Your task to perform on an android device: delete a single message in the gmail app Image 0: 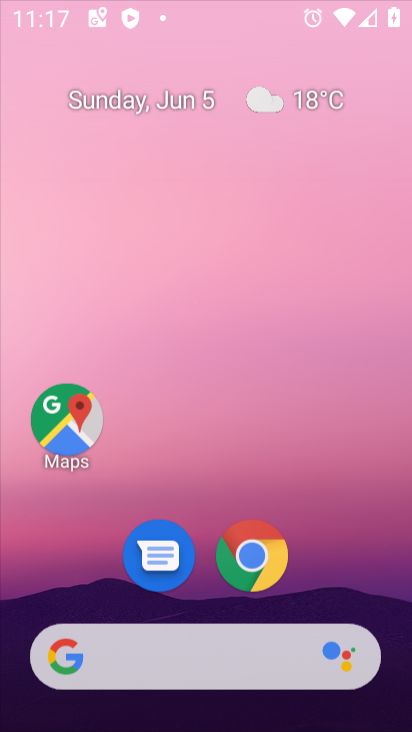
Step 0: click (317, 50)
Your task to perform on an android device: delete a single message in the gmail app Image 1: 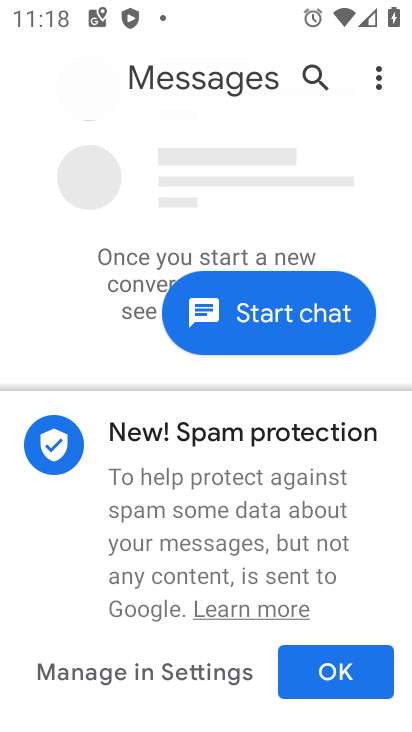
Step 1: press home button
Your task to perform on an android device: delete a single message in the gmail app Image 2: 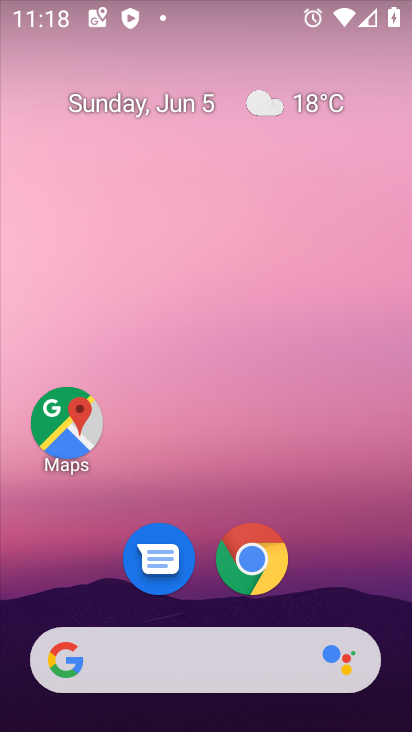
Step 2: drag from (400, 716) to (315, 40)
Your task to perform on an android device: delete a single message in the gmail app Image 3: 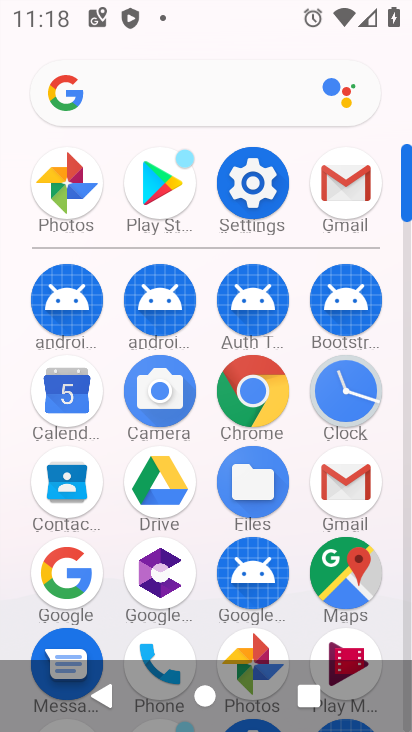
Step 3: click (340, 496)
Your task to perform on an android device: delete a single message in the gmail app Image 4: 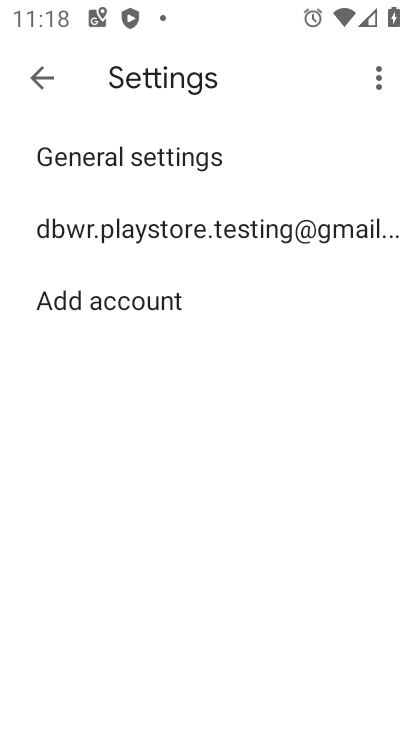
Step 4: click (34, 78)
Your task to perform on an android device: delete a single message in the gmail app Image 5: 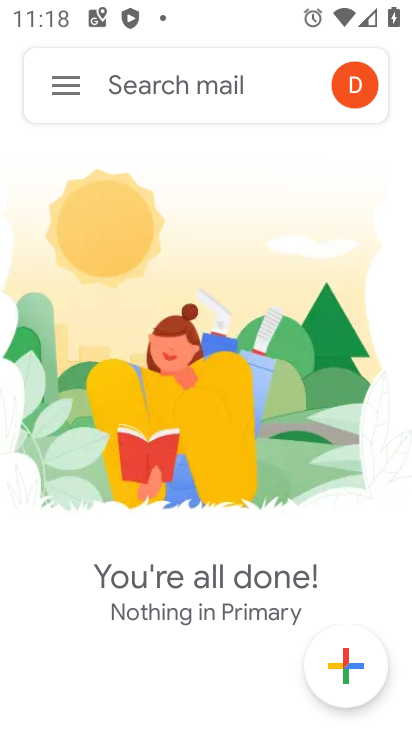
Step 5: click (56, 84)
Your task to perform on an android device: delete a single message in the gmail app Image 6: 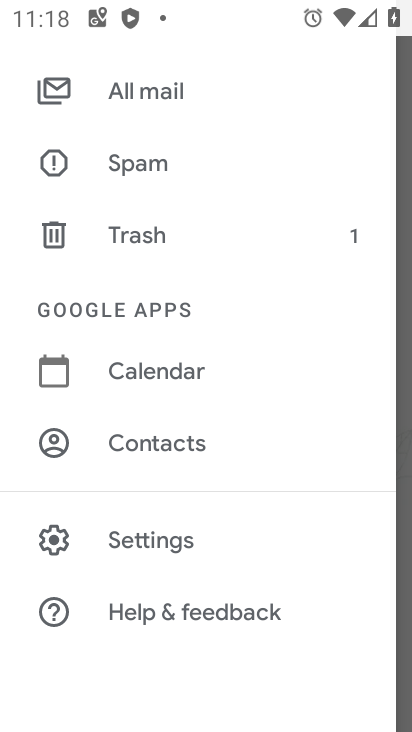
Step 6: drag from (252, 108) to (303, 652)
Your task to perform on an android device: delete a single message in the gmail app Image 7: 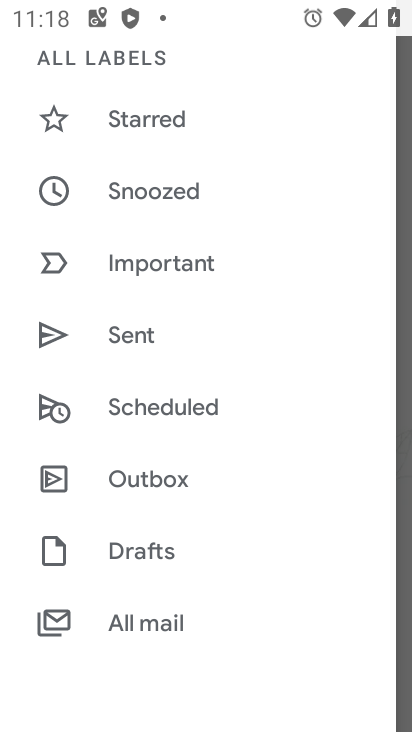
Step 7: drag from (283, 112) to (306, 639)
Your task to perform on an android device: delete a single message in the gmail app Image 8: 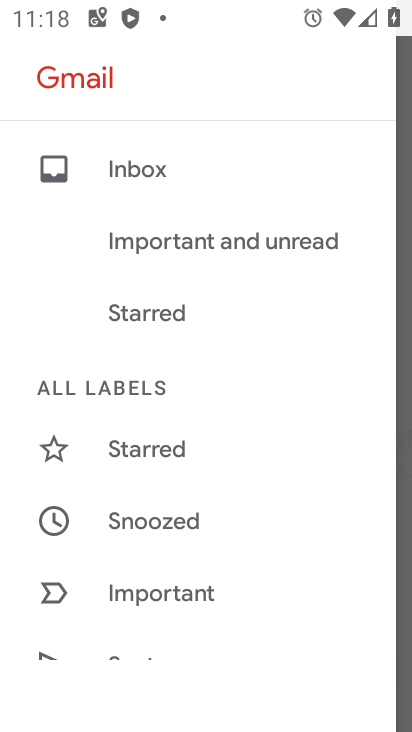
Step 8: click (163, 163)
Your task to perform on an android device: delete a single message in the gmail app Image 9: 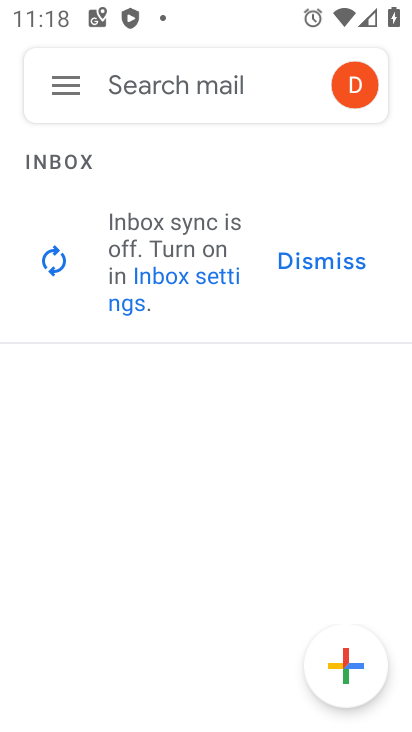
Step 9: task complete